Your task to perform on an android device: turn on notifications settings in the gmail app Image 0: 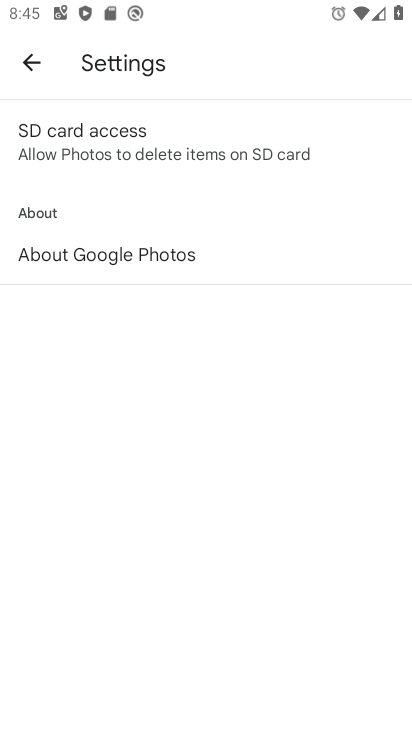
Step 0: press home button
Your task to perform on an android device: turn on notifications settings in the gmail app Image 1: 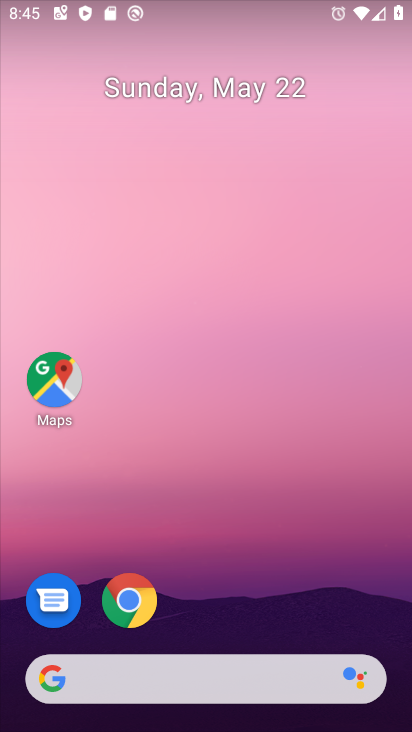
Step 1: drag from (228, 669) to (255, 355)
Your task to perform on an android device: turn on notifications settings in the gmail app Image 2: 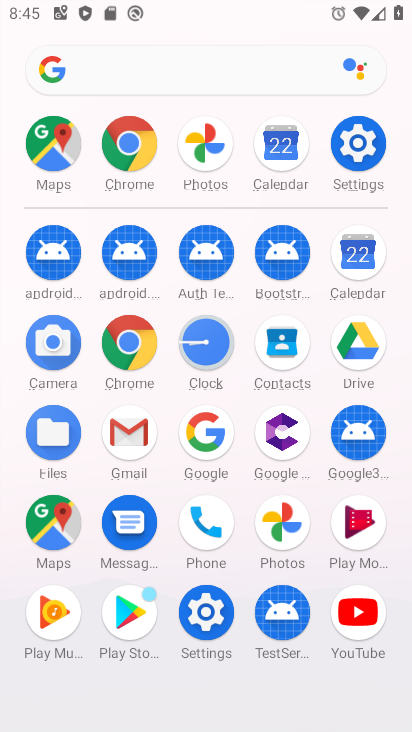
Step 2: click (131, 444)
Your task to perform on an android device: turn on notifications settings in the gmail app Image 3: 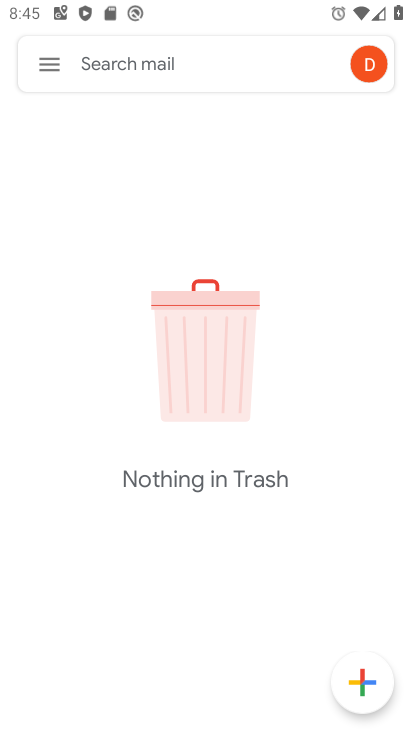
Step 3: click (47, 79)
Your task to perform on an android device: turn on notifications settings in the gmail app Image 4: 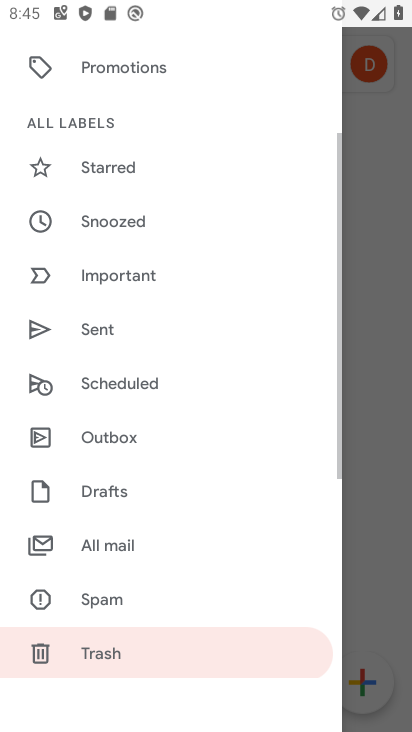
Step 4: drag from (173, 544) to (198, 305)
Your task to perform on an android device: turn on notifications settings in the gmail app Image 5: 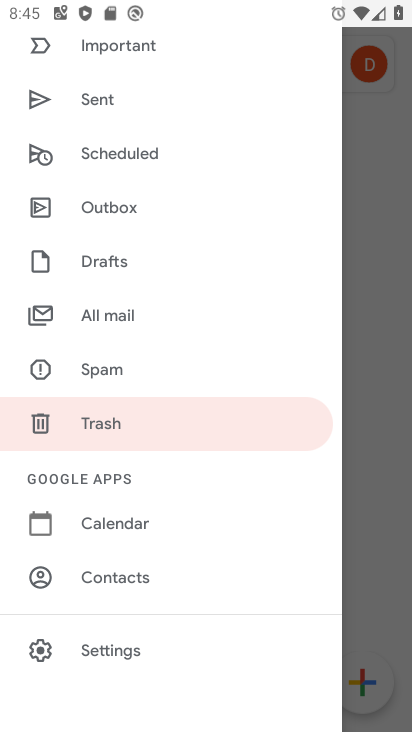
Step 5: click (67, 653)
Your task to perform on an android device: turn on notifications settings in the gmail app Image 6: 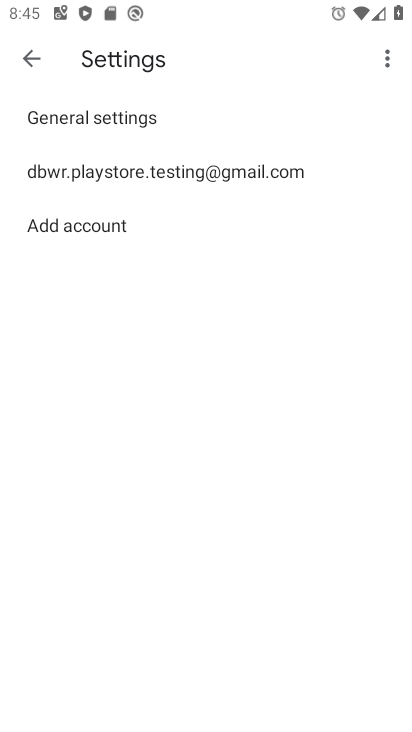
Step 6: click (143, 119)
Your task to perform on an android device: turn on notifications settings in the gmail app Image 7: 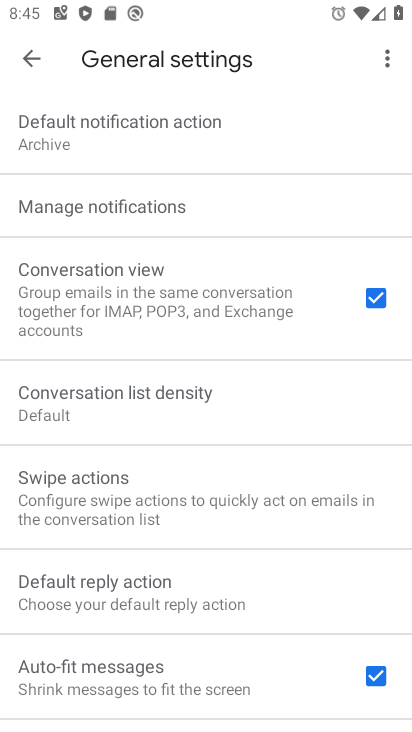
Step 7: click (82, 220)
Your task to perform on an android device: turn on notifications settings in the gmail app Image 8: 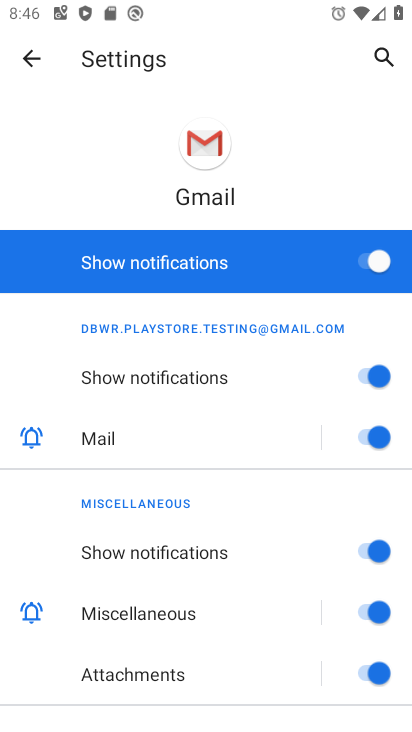
Step 8: task complete